Your task to perform on an android device: all mails in gmail Image 0: 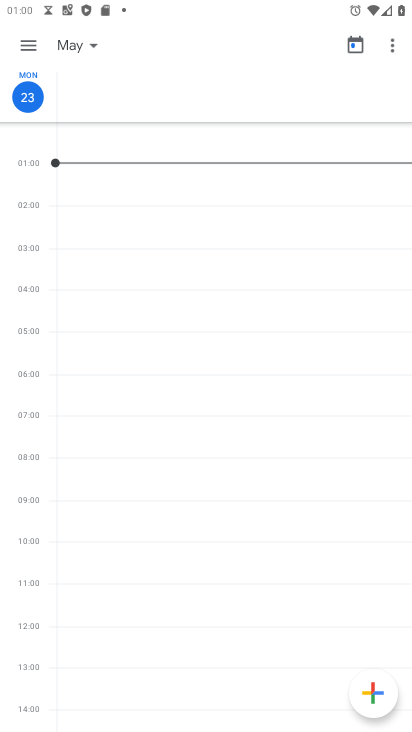
Step 0: press home button
Your task to perform on an android device: all mails in gmail Image 1: 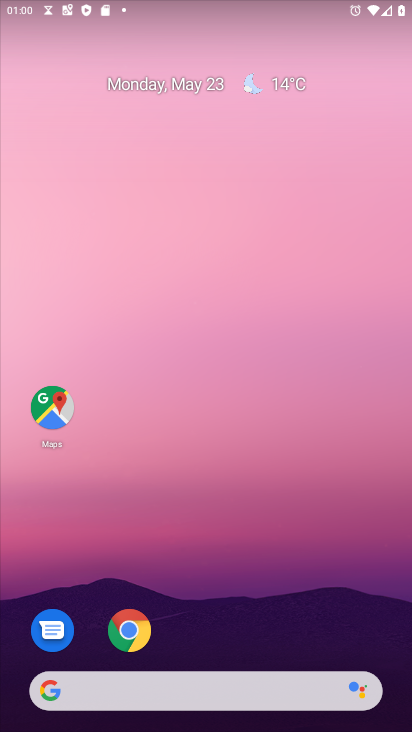
Step 1: drag from (244, 303) to (209, 32)
Your task to perform on an android device: all mails in gmail Image 2: 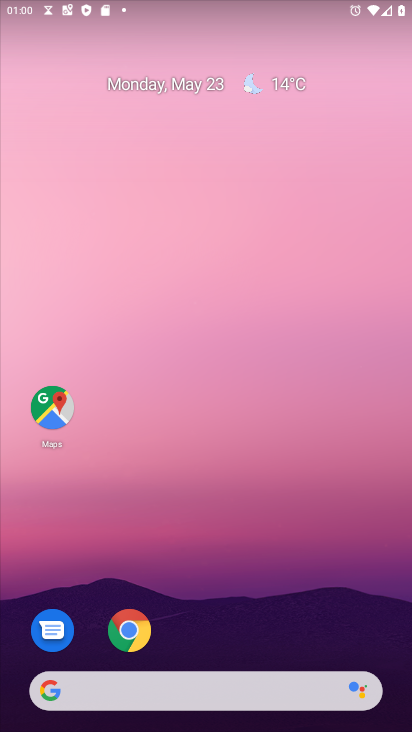
Step 2: drag from (262, 505) to (166, 28)
Your task to perform on an android device: all mails in gmail Image 3: 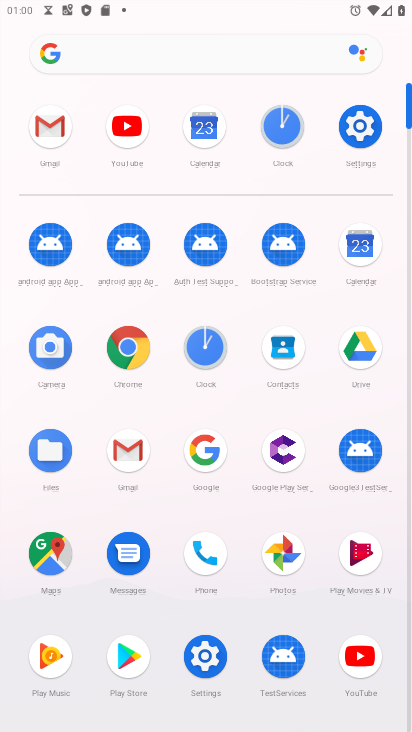
Step 3: click (56, 121)
Your task to perform on an android device: all mails in gmail Image 4: 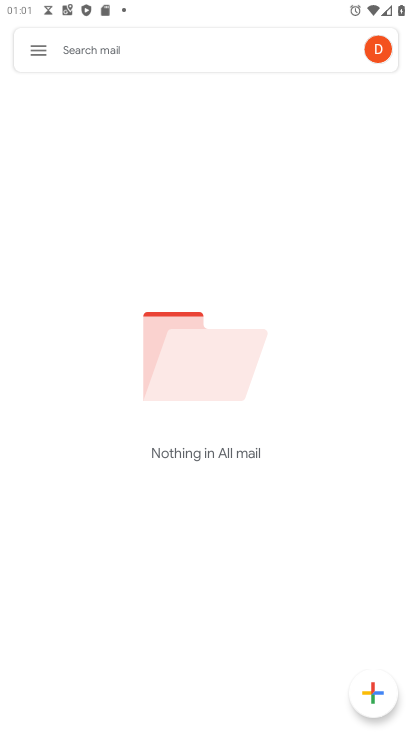
Step 4: task complete